Your task to perform on an android device: View the shopping cart on bestbuy. Add "acer nitro" to the cart on bestbuy Image 0: 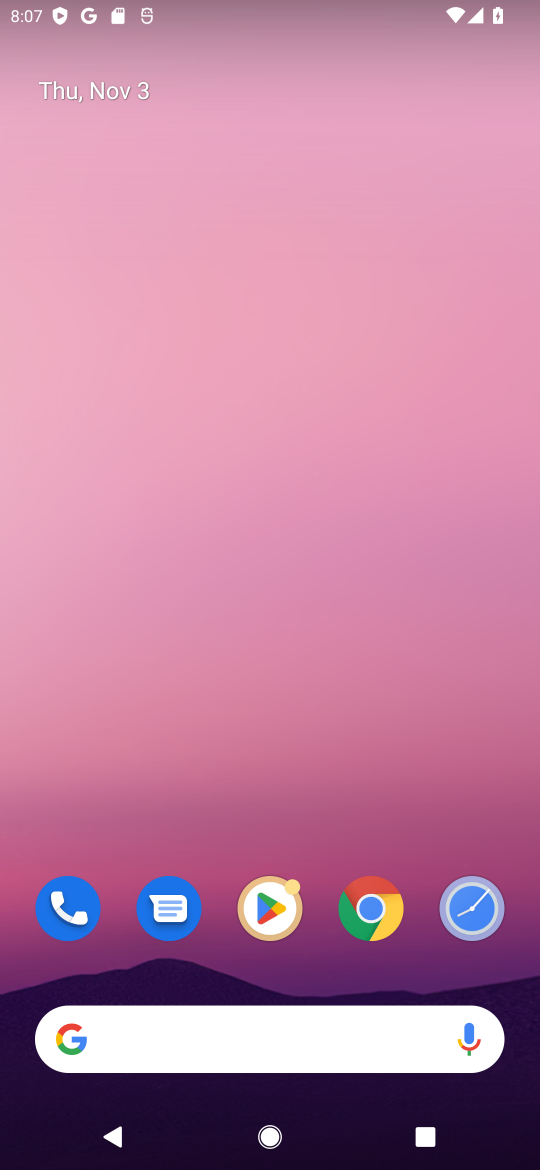
Step 0: click (351, 906)
Your task to perform on an android device: View the shopping cart on bestbuy. Add "acer nitro" to the cart on bestbuy Image 1: 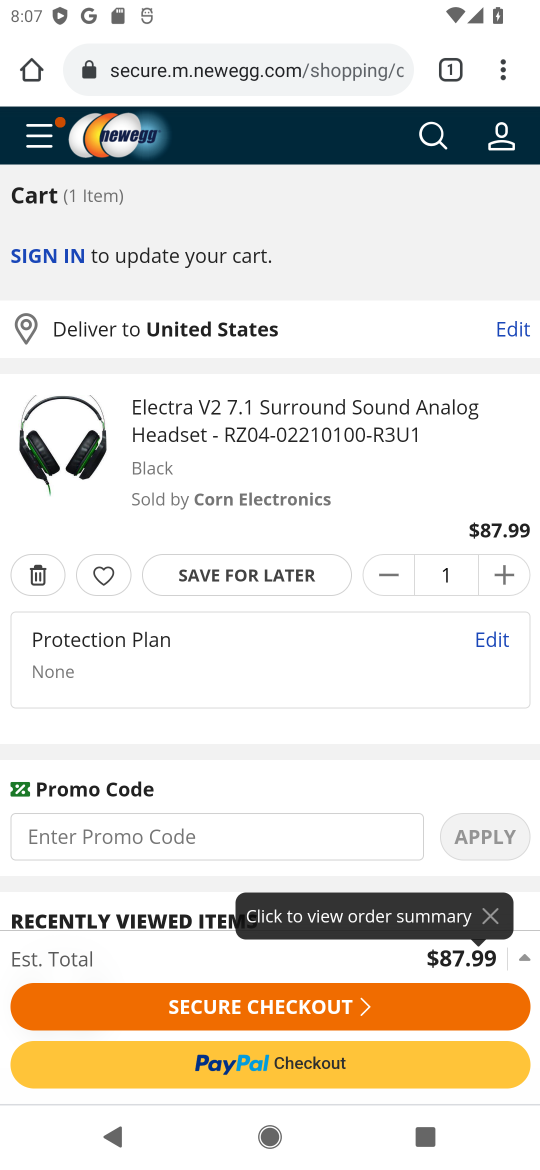
Step 1: click (327, 66)
Your task to perform on an android device: View the shopping cart on bestbuy. Add "acer nitro" to the cart on bestbuy Image 2: 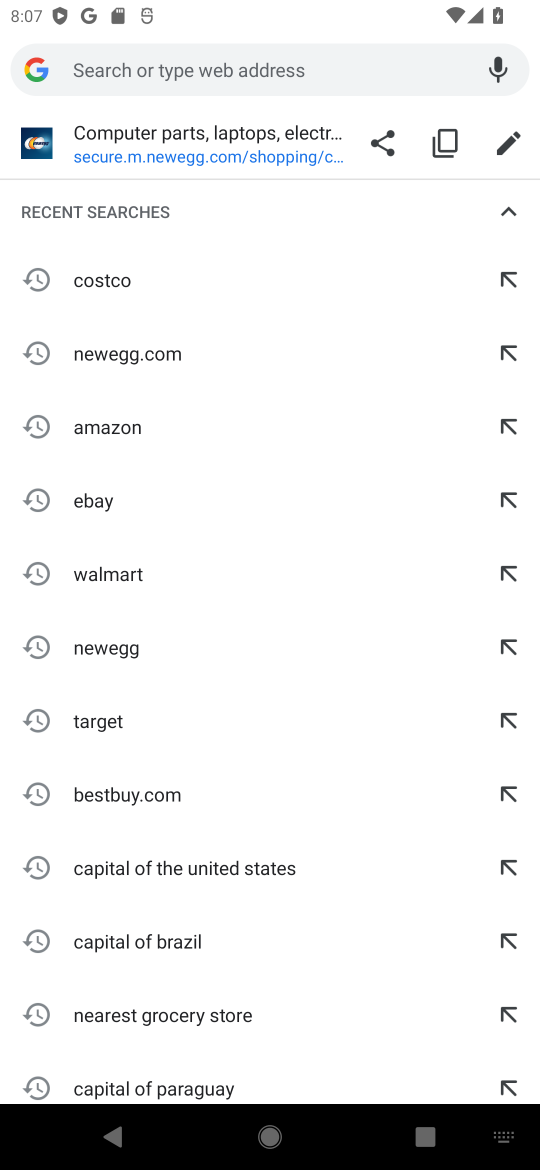
Step 2: click (156, 798)
Your task to perform on an android device: View the shopping cart on bestbuy. Add "acer nitro" to the cart on bestbuy Image 3: 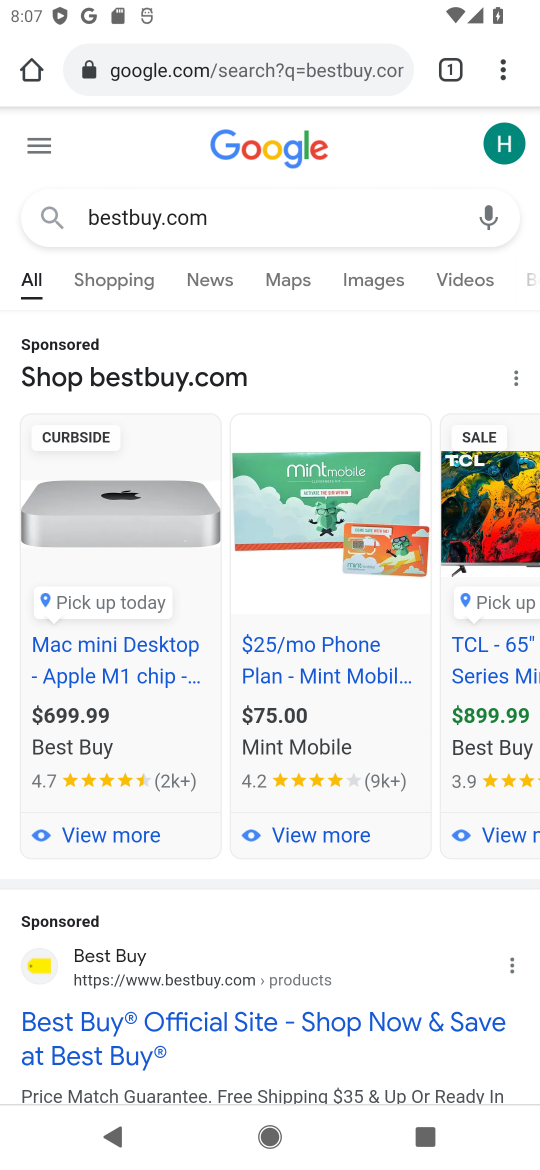
Step 3: click (216, 981)
Your task to perform on an android device: View the shopping cart on bestbuy. Add "acer nitro" to the cart on bestbuy Image 4: 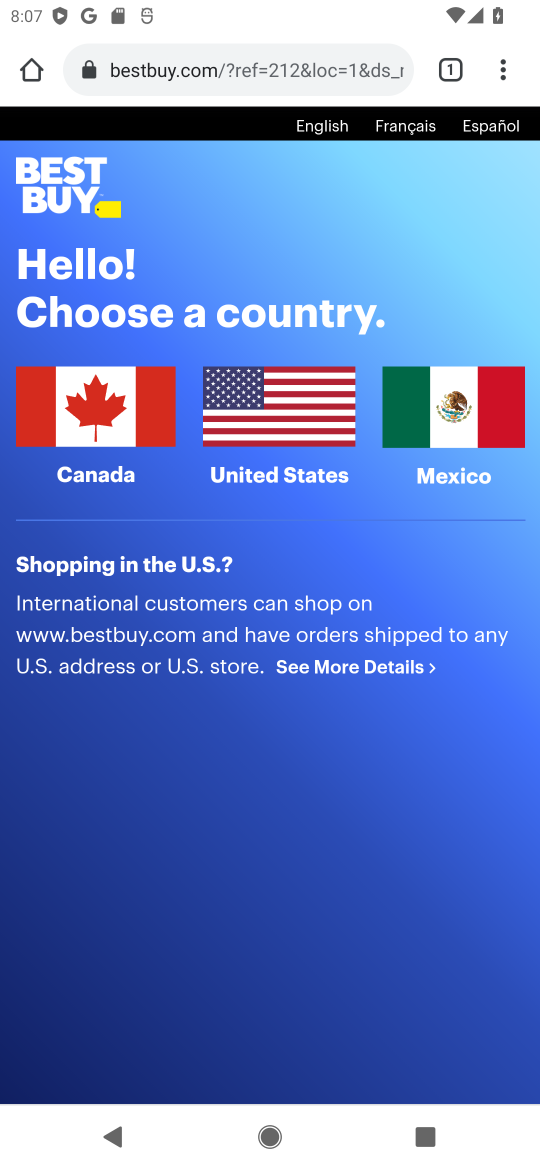
Step 4: click (304, 409)
Your task to perform on an android device: View the shopping cart on bestbuy. Add "acer nitro" to the cart on bestbuy Image 5: 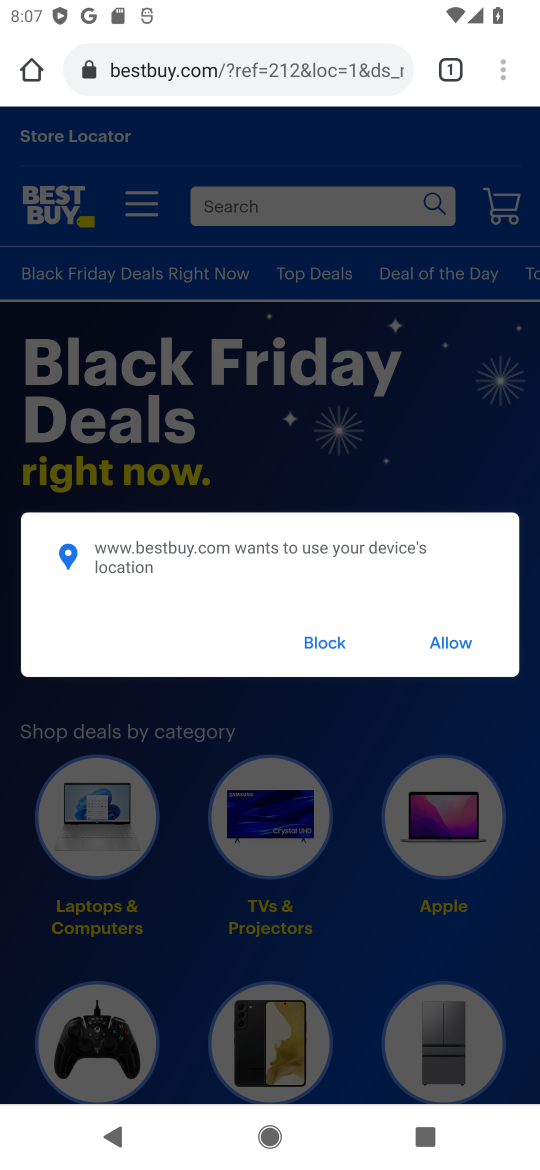
Step 5: click (332, 645)
Your task to perform on an android device: View the shopping cart on bestbuy. Add "acer nitro" to the cart on bestbuy Image 6: 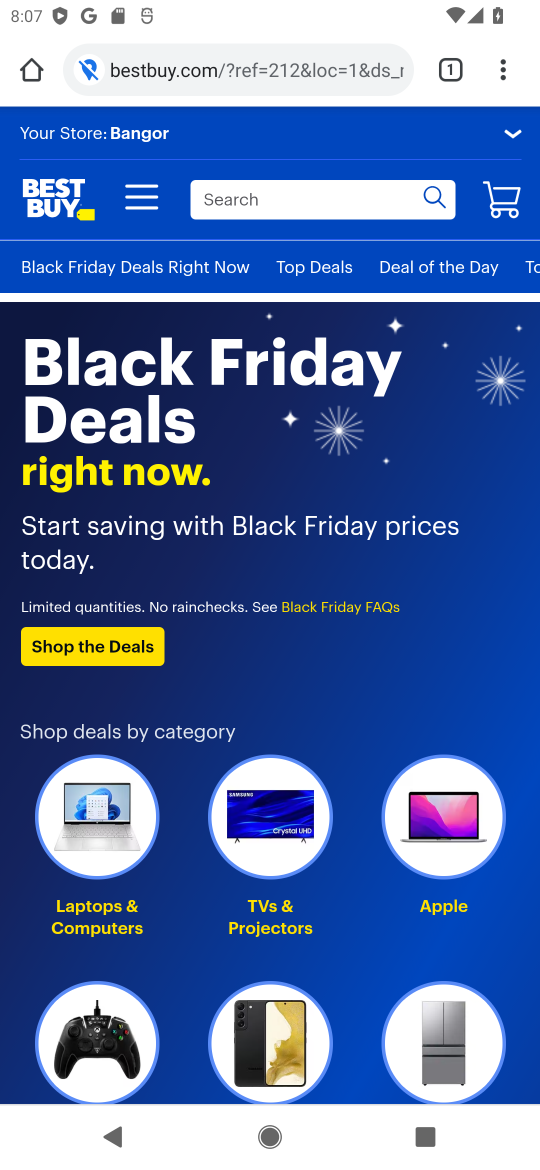
Step 6: click (307, 210)
Your task to perform on an android device: View the shopping cart on bestbuy. Add "acer nitro" to the cart on bestbuy Image 7: 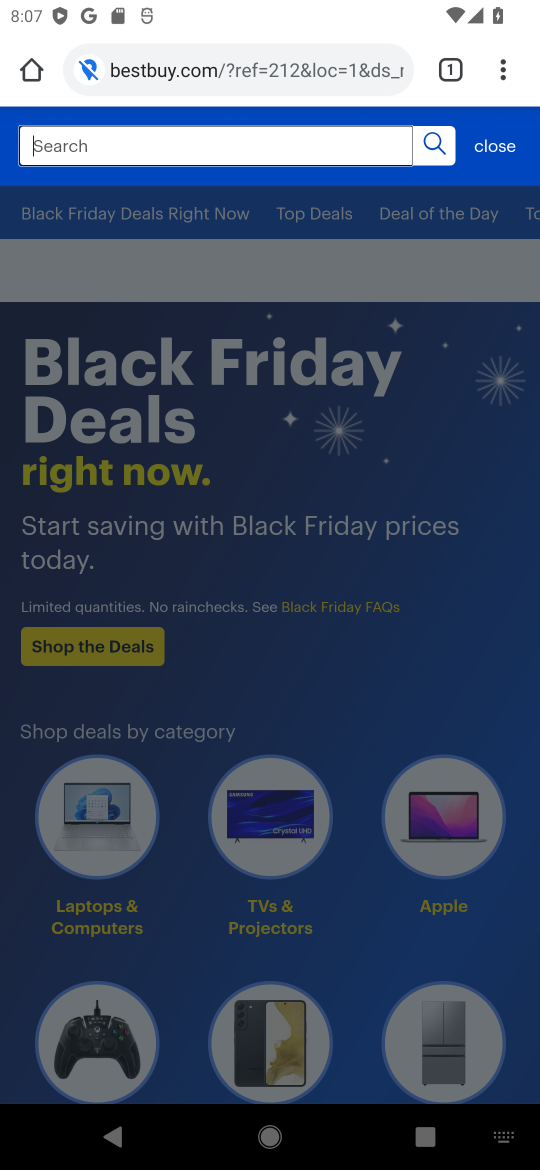
Step 7: type "acer nitro"
Your task to perform on an android device: View the shopping cart on bestbuy. Add "acer nitro" to the cart on bestbuy Image 8: 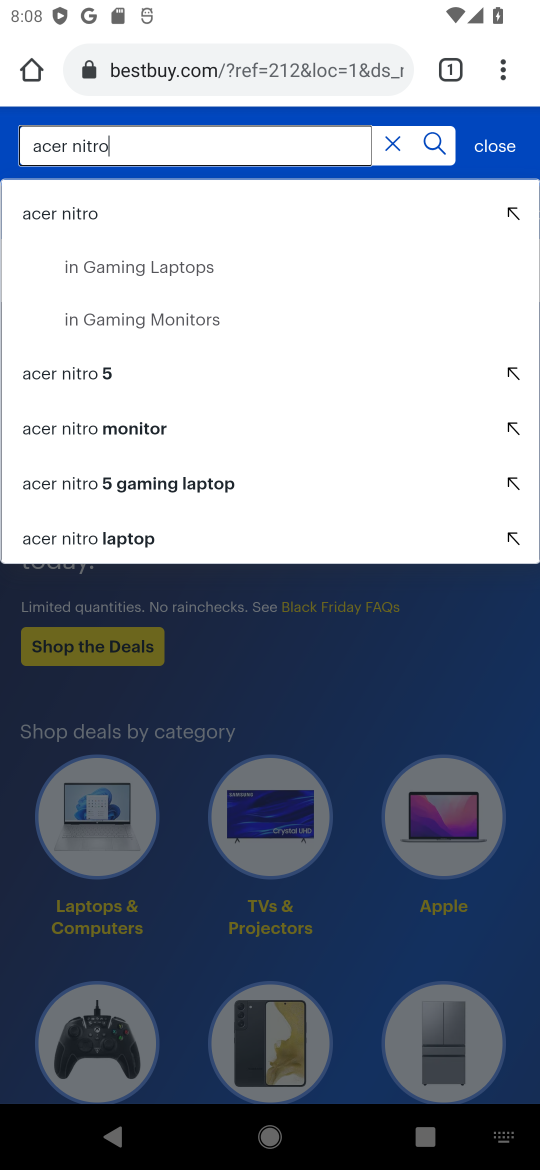
Step 8: click (67, 204)
Your task to perform on an android device: View the shopping cart on bestbuy. Add "acer nitro" to the cart on bestbuy Image 9: 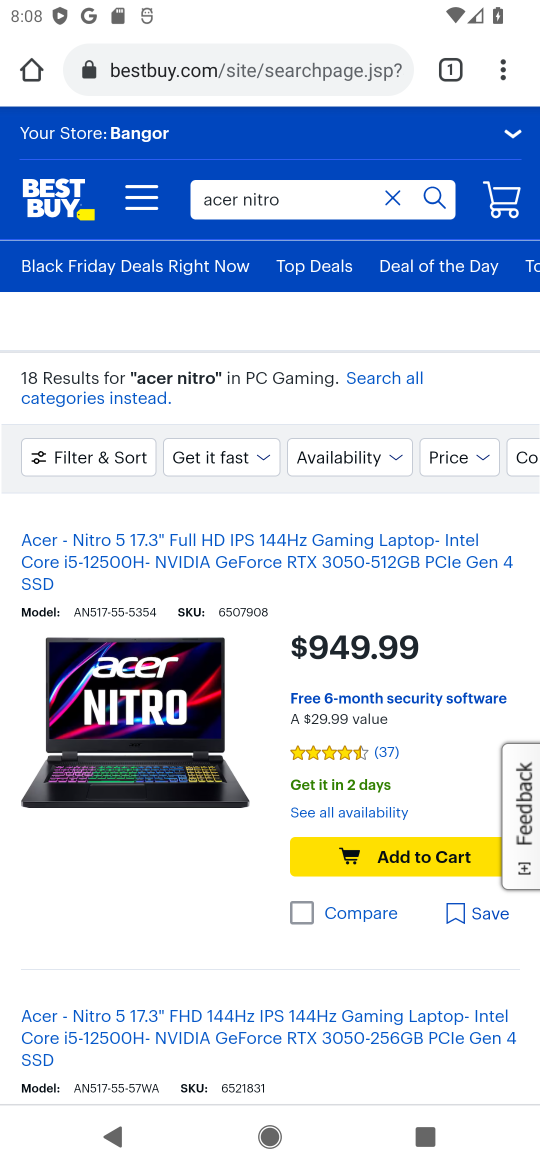
Step 9: click (101, 720)
Your task to perform on an android device: View the shopping cart on bestbuy. Add "acer nitro" to the cart on bestbuy Image 10: 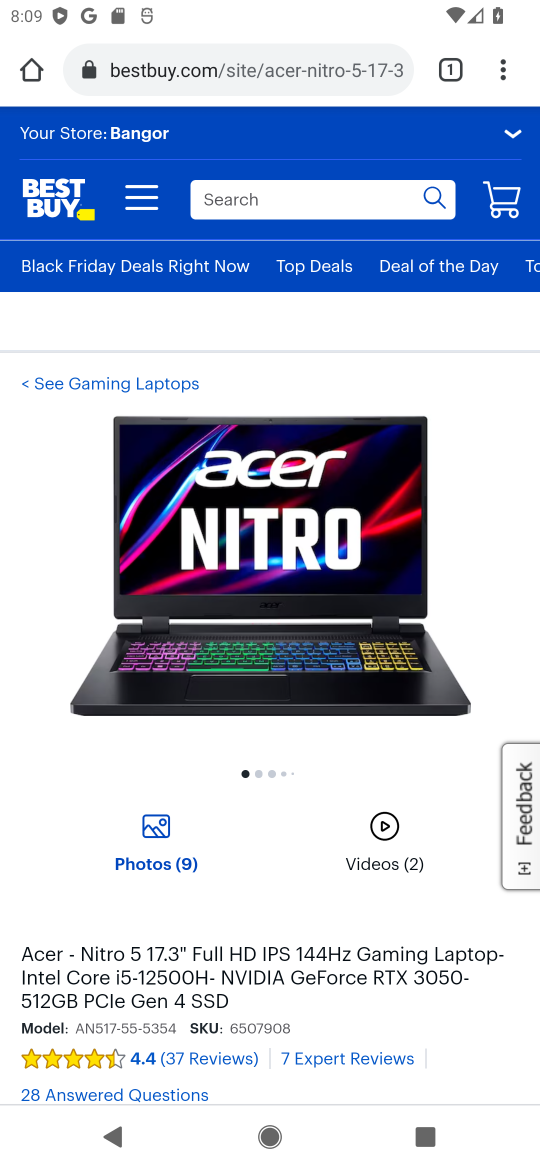
Step 10: drag from (163, 858) to (246, 319)
Your task to perform on an android device: View the shopping cart on bestbuy. Add "acer nitro" to the cart on bestbuy Image 11: 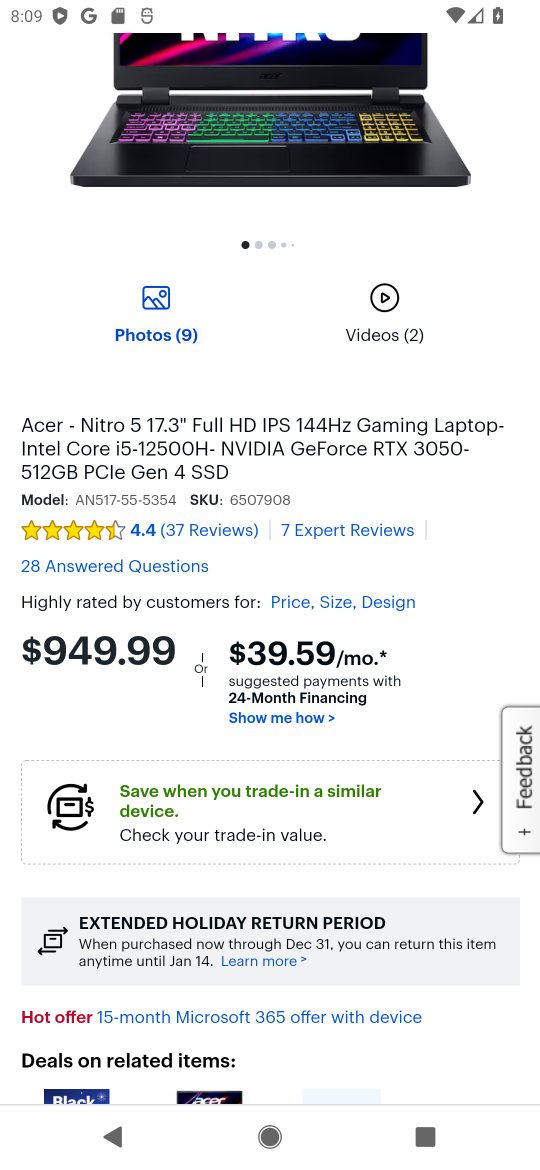
Step 11: drag from (340, 875) to (338, 477)
Your task to perform on an android device: View the shopping cart on bestbuy. Add "acer nitro" to the cart on bestbuy Image 12: 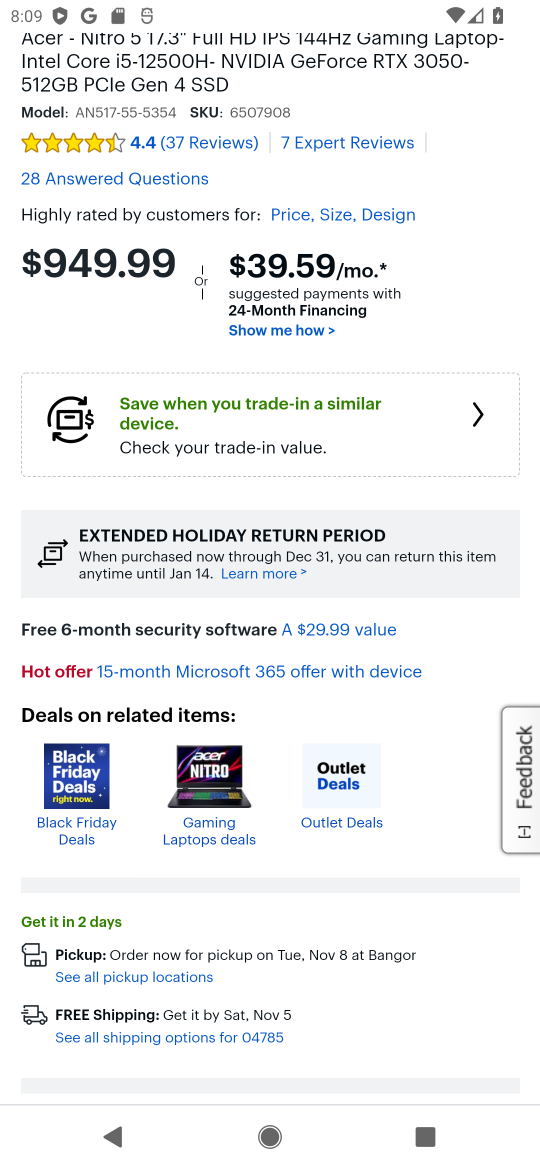
Step 12: drag from (359, 949) to (271, 446)
Your task to perform on an android device: View the shopping cart on bestbuy. Add "acer nitro" to the cart on bestbuy Image 13: 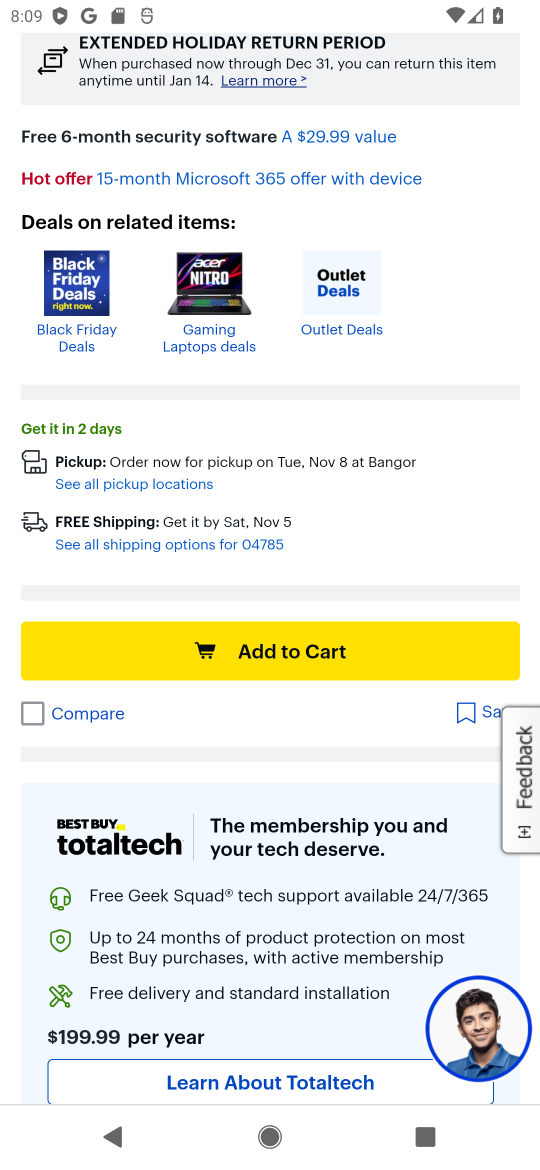
Step 13: click (319, 640)
Your task to perform on an android device: View the shopping cart on bestbuy. Add "acer nitro" to the cart on bestbuy Image 14: 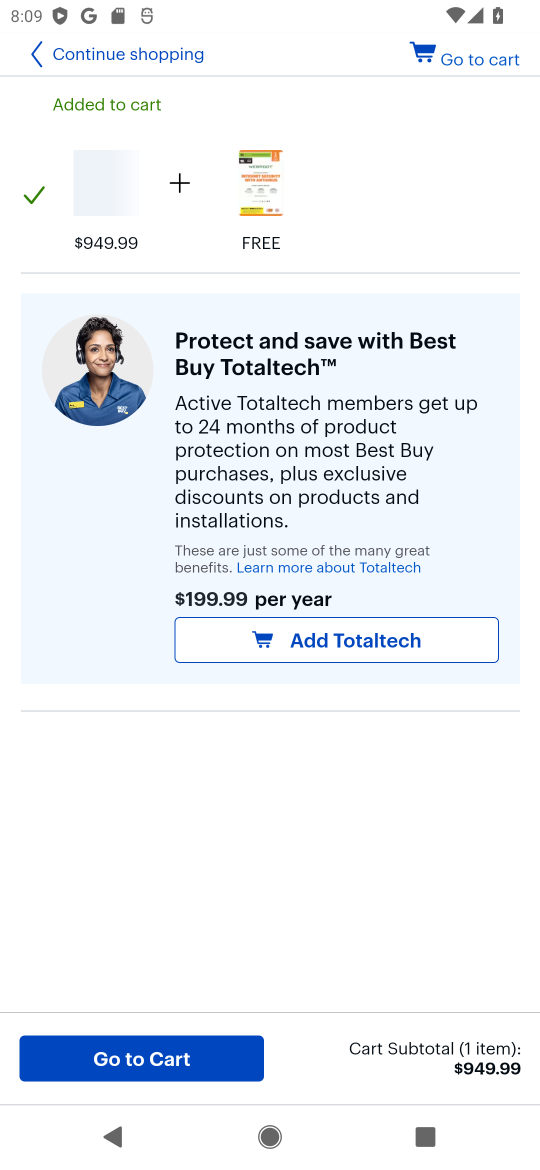
Step 14: task complete